Your task to perform on an android device: Go to privacy settings Image 0: 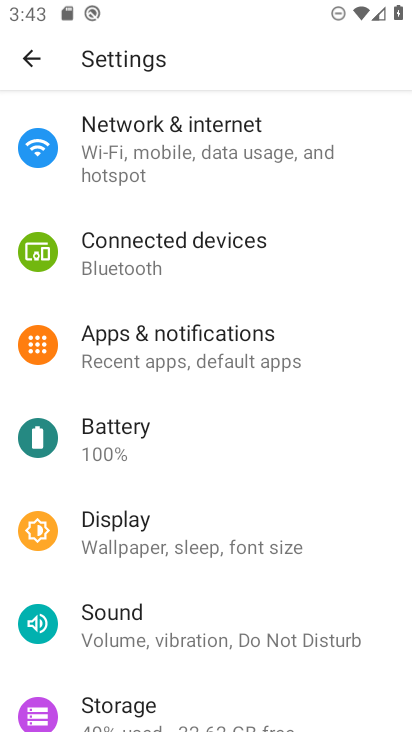
Step 0: press back button
Your task to perform on an android device: Go to privacy settings Image 1: 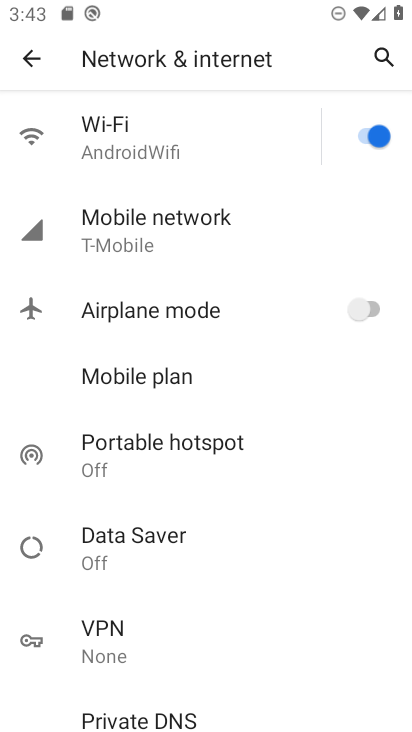
Step 1: press back button
Your task to perform on an android device: Go to privacy settings Image 2: 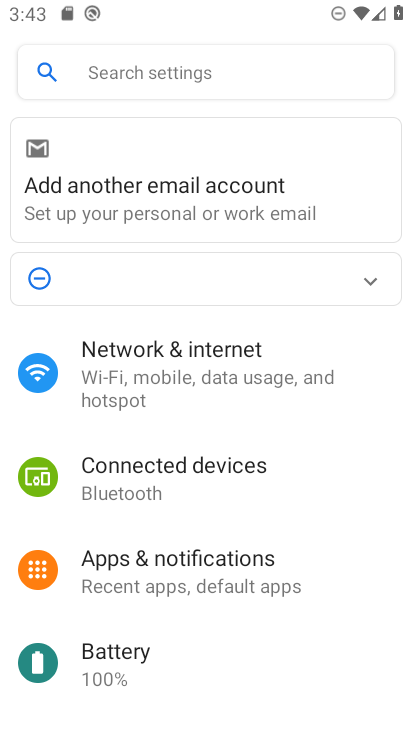
Step 2: press home button
Your task to perform on an android device: Go to privacy settings Image 3: 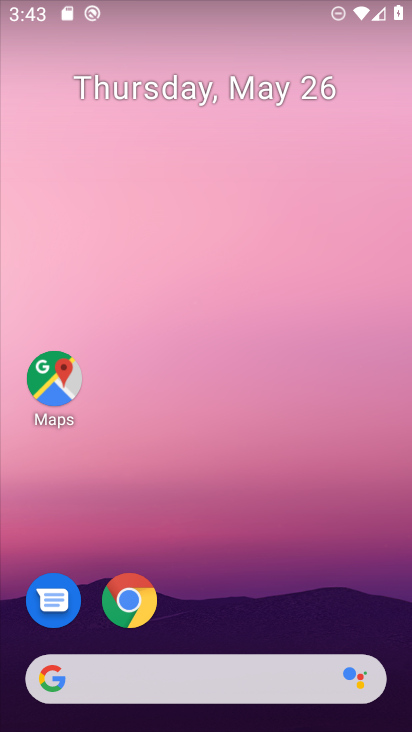
Step 3: drag from (226, 569) to (196, 41)
Your task to perform on an android device: Go to privacy settings Image 4: 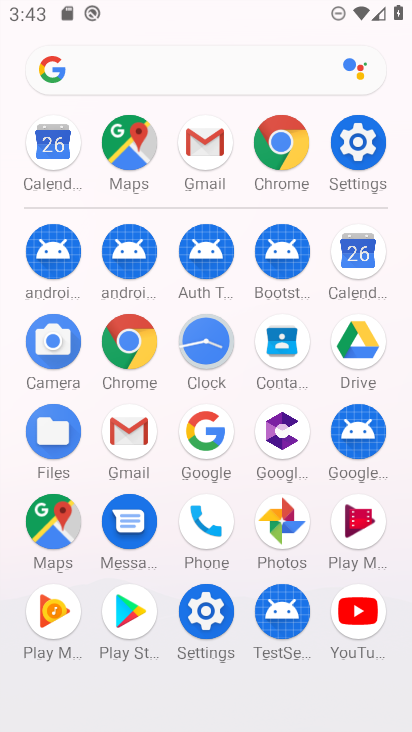
Step 4: click (207, 612)
Your task to perform on an android device: Go to privacy settings Image 5: 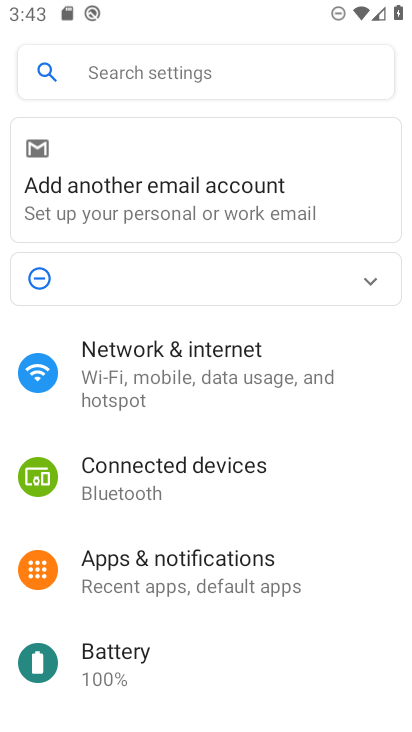
Step 5: drag from (307, 651) to (279, 299)
Your task to perform on an android device: Go to privacy settings Image 6: 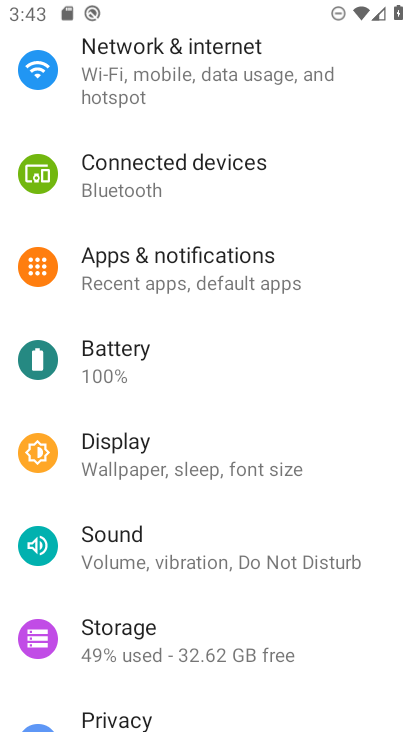
Step 6: click (121, 349)
Your task to perform on an android device: Go to privacy settings Image 7: 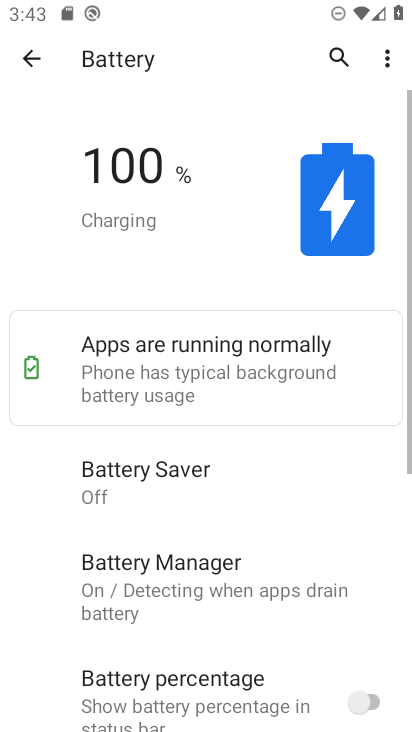
Step 7: drag from (208, 669) to (206, 189)
Your task to perform on an android device: Go to privacy settings Image 8: 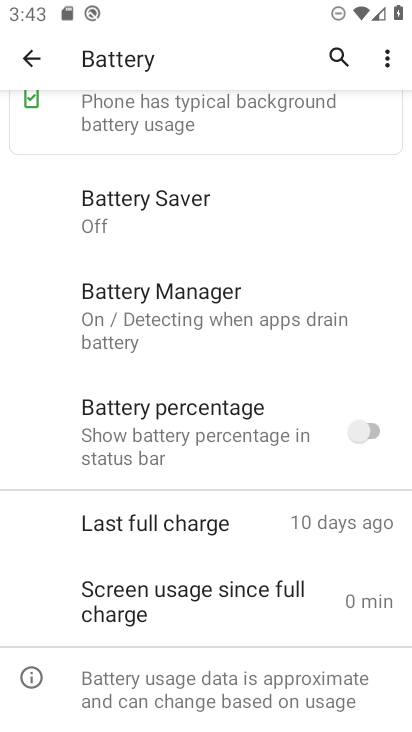
Step 8: drag from (122, 650) to (182, 196)
Your task to perform on an android device: Go to privacy settings Image 9: 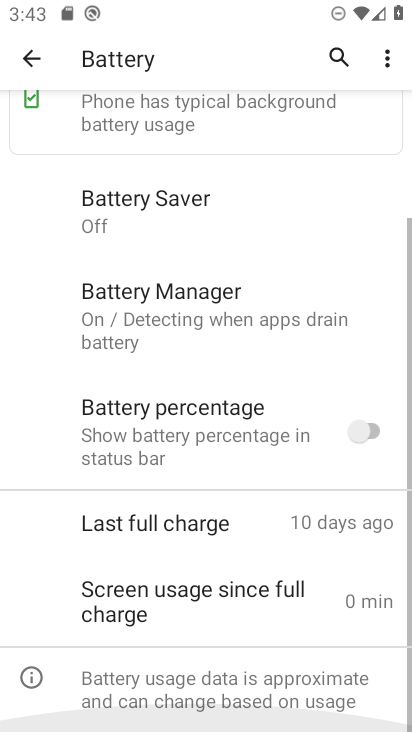
Step 9: drag from (183, 191) to (183, 608)
Your task to perform on an android device: Go to privacy settings Image 10: 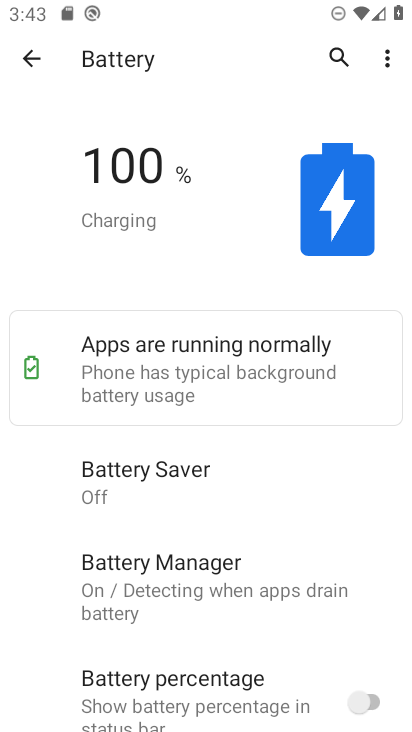
Step 10: click (31, 61)
Your task to perform on an android device: Go to privacy settings Image 11: 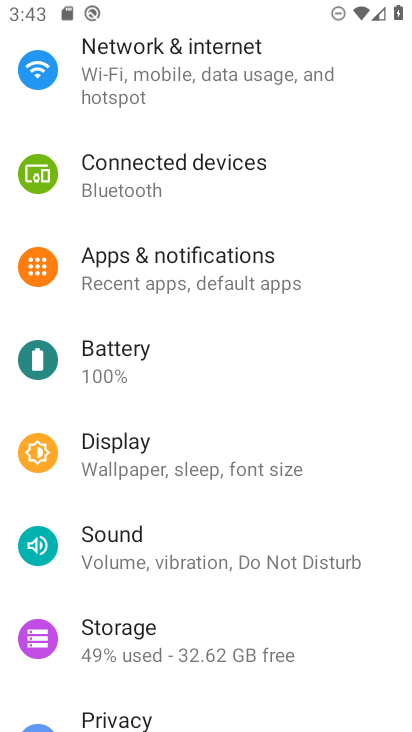
Step 11: drag from (264, 623) to (284, 199)
Your task to perform on an android device: Go to privacy settings Image 12: 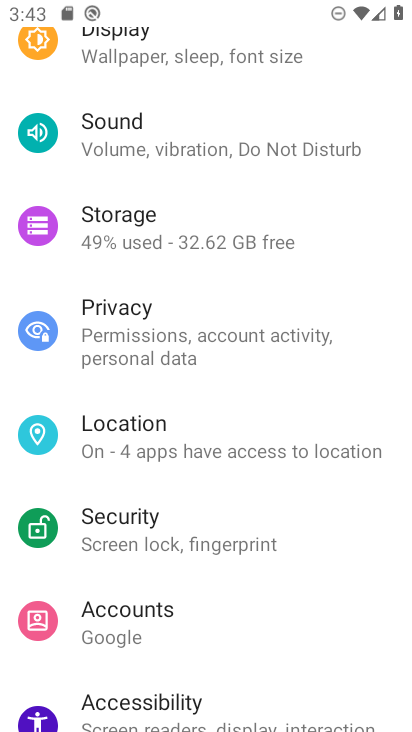
Step 12: click (157, 324)
Your task to perform on an android device: Go to privacy settings Image 13: 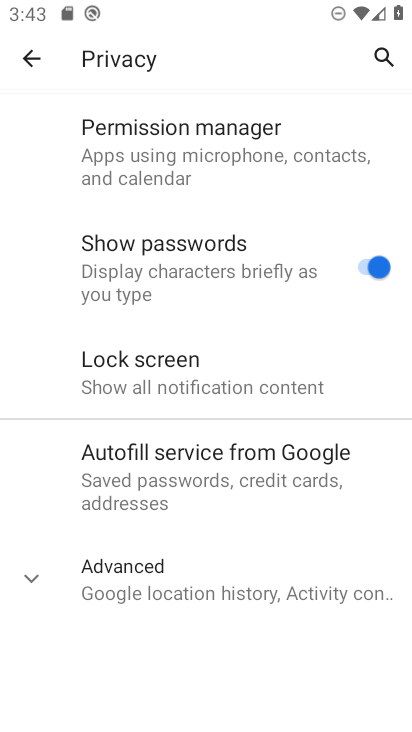
Step 13: click (45, 582)
Your task to perform on an android device: Go to privacy settings Image 14: 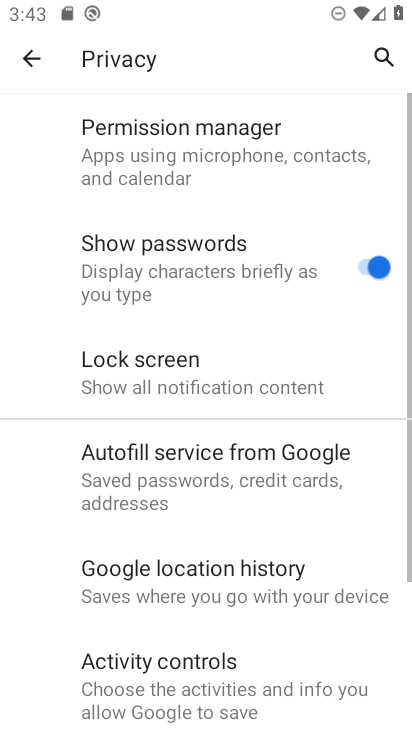
Step 14: task complete